Your task to perform on an android device: turn off priority inbox in the gmail app Image 0: 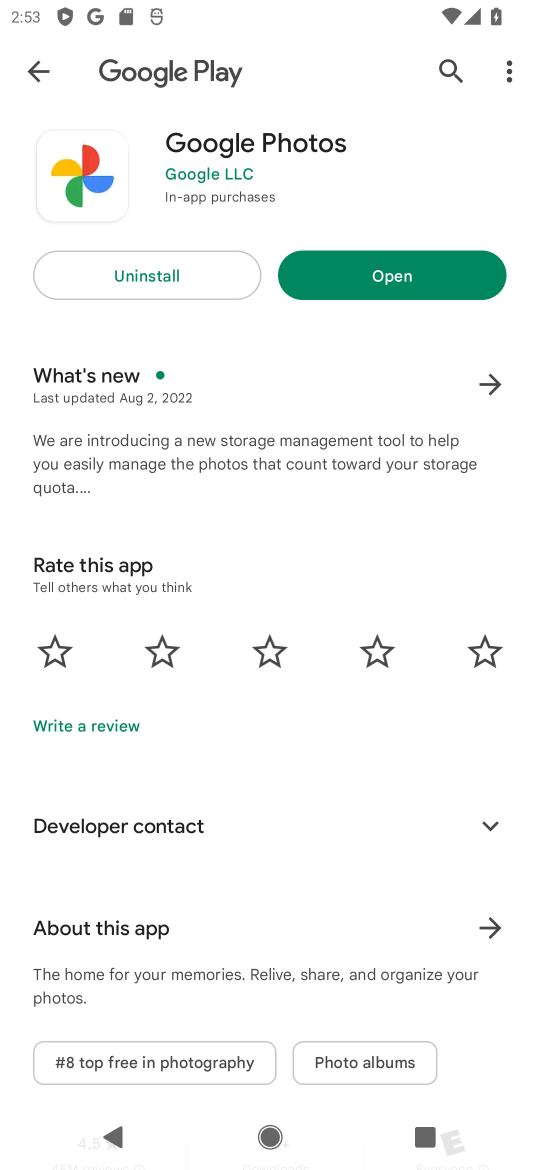
Step 0: press home button
Your task to perform on an android device: turn off priority inbox in the gmail app Image 1: 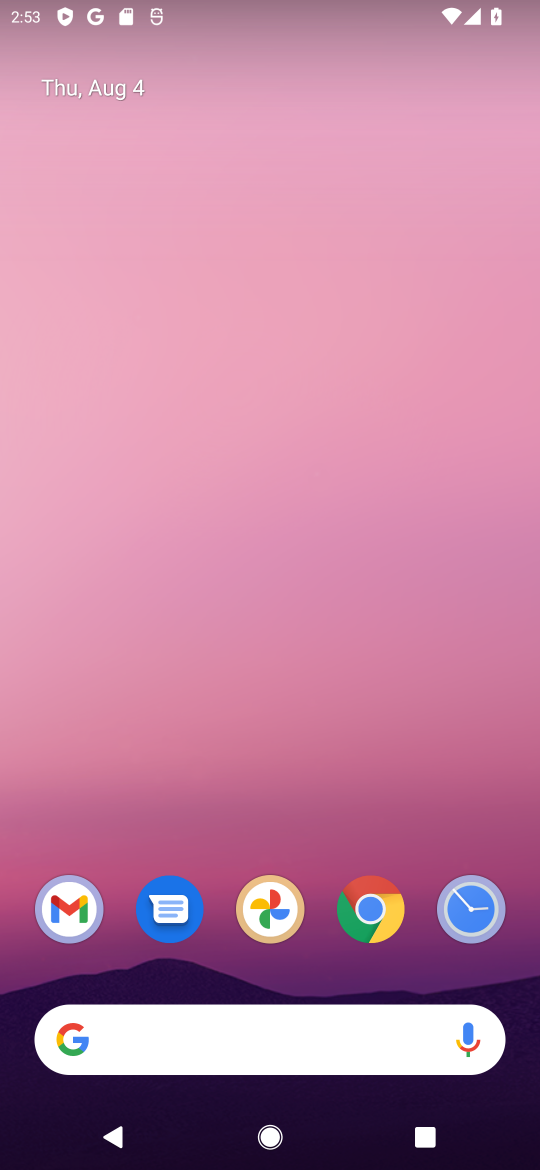
Step 1: click (68, 916)
Your task to perform on an android device: turn off priority inbox in the gmail app Image 2: 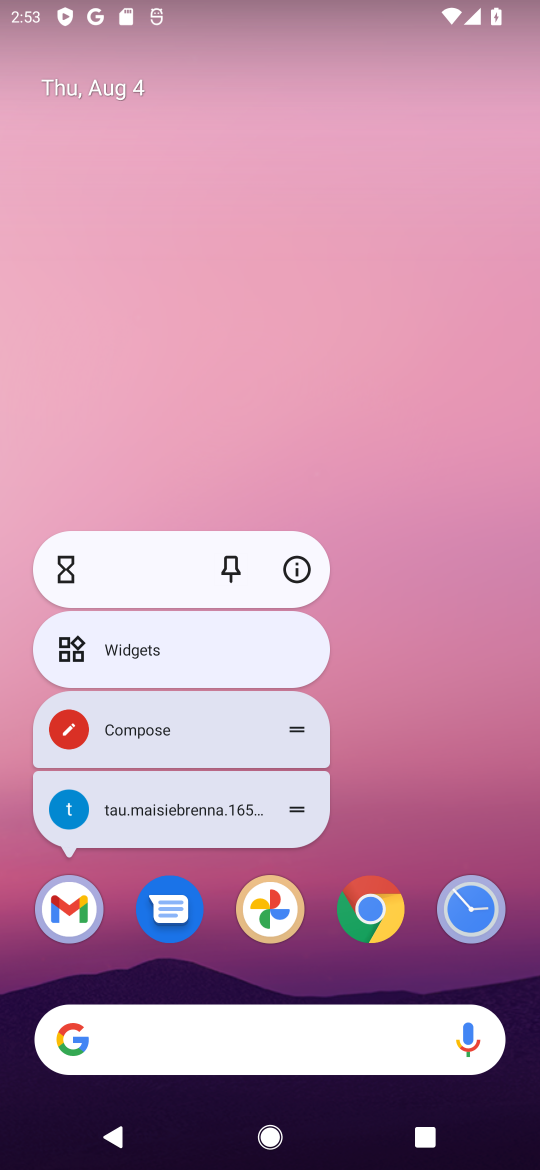
Step 2: click (65, 891)
Your task to perform on an android device: turn off priority inbox in the gmail app Image 3: 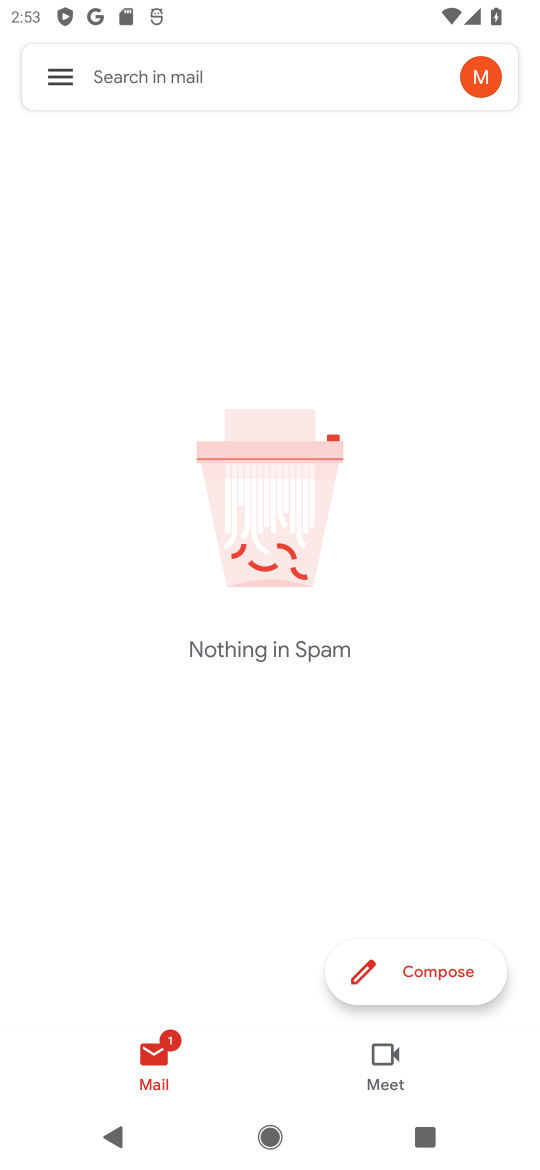
Step 3: click (66, 77)
Your task to perform on an android device: turn off priority inbox in the gmail app Image 4: 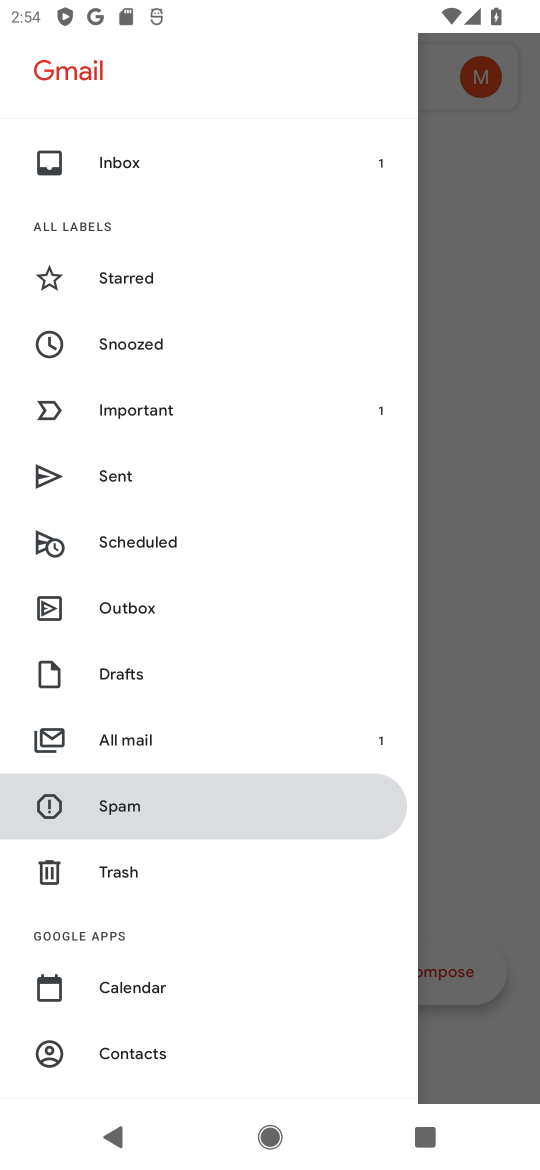
Step 4: drag from (207, 940) to (352, 181)
Your task to perform on an android device: turn off priority inbox in the gmail app Image 5: 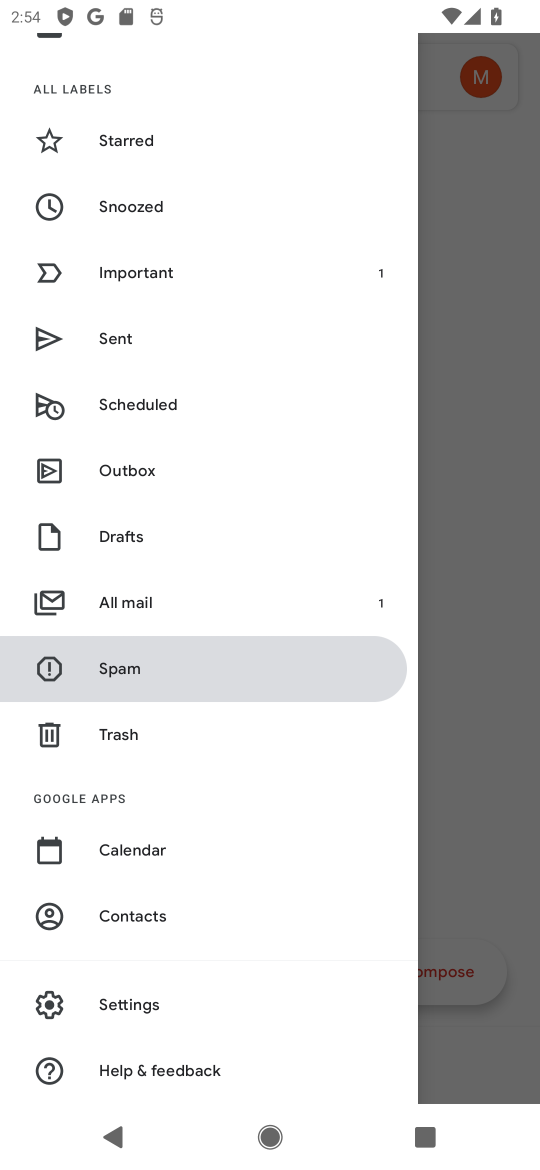
Step 5: click (118, 1008)
Your task to perform on an android device: turn off priority inbox in the gmail app Image 6: 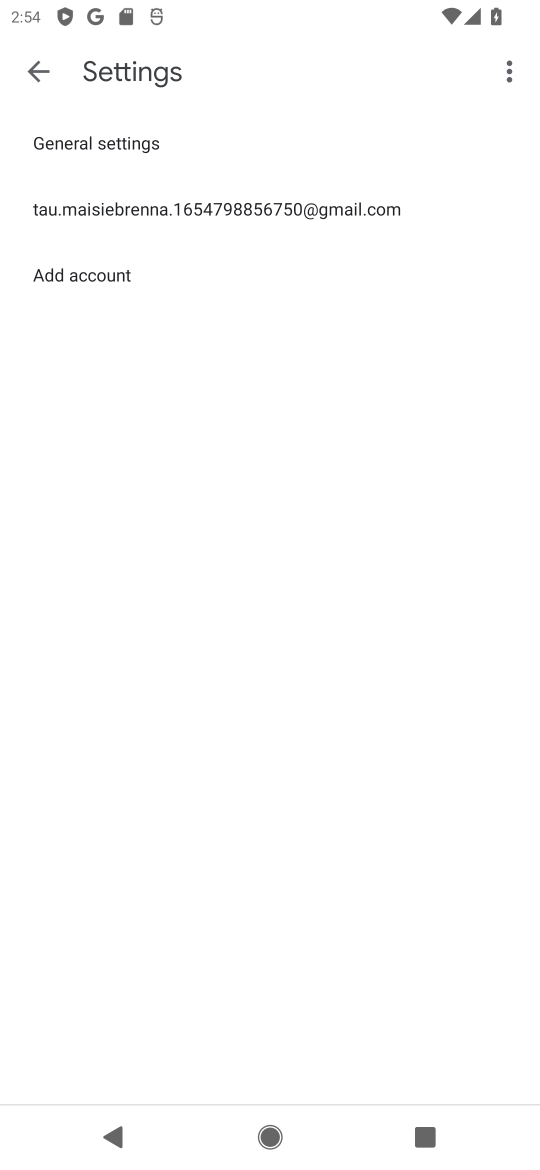
Step 6: click (301, 206)
Your task to perform on an android device: turn off priority inbox in the gmail app Image 7: 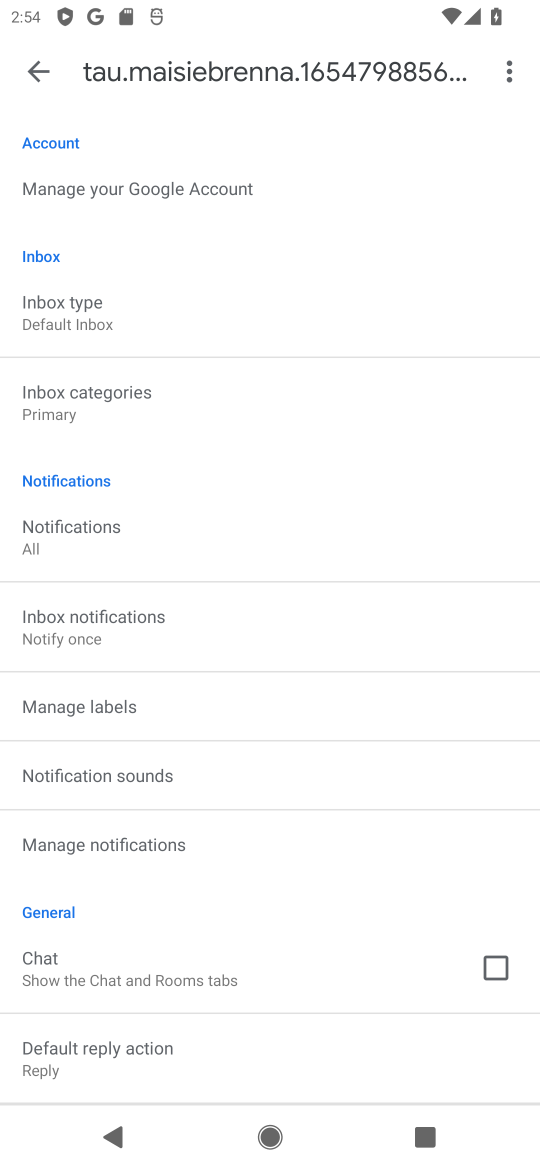
Step 7: click (89, 305)
Your task to perform on an android device: turn off priority inbox in the gmail app Image 8: 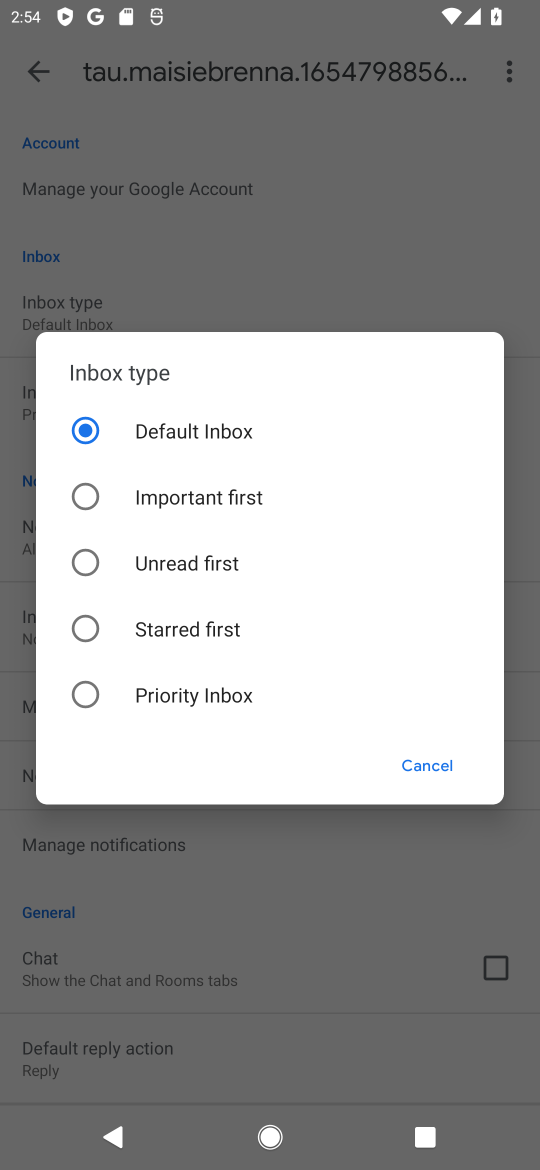
Step 8: task complete